Your task to perform on an android device: set default search engine in the chrome app Image 0: 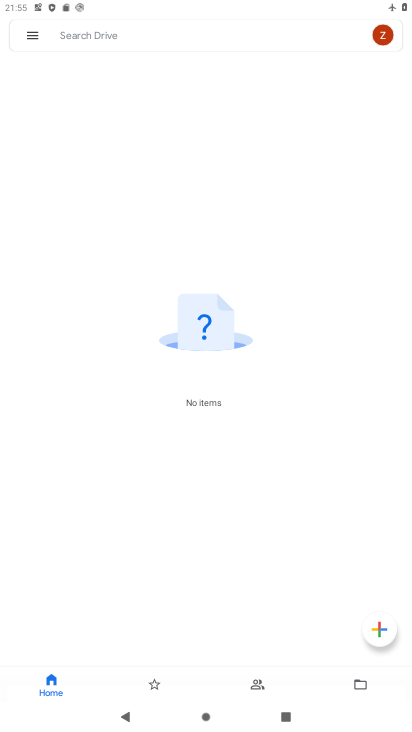
Step 0: press home button
Your task to perform on an android device: set default search engine in the chrome app Image 1: 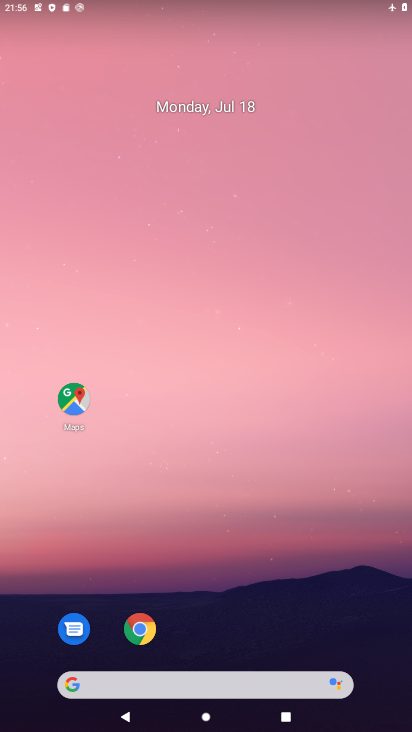
Step 1: drag from (333, 594) to (225, 33)
Your task to perform on an android device: set default search engine in the chrome app Image 2: 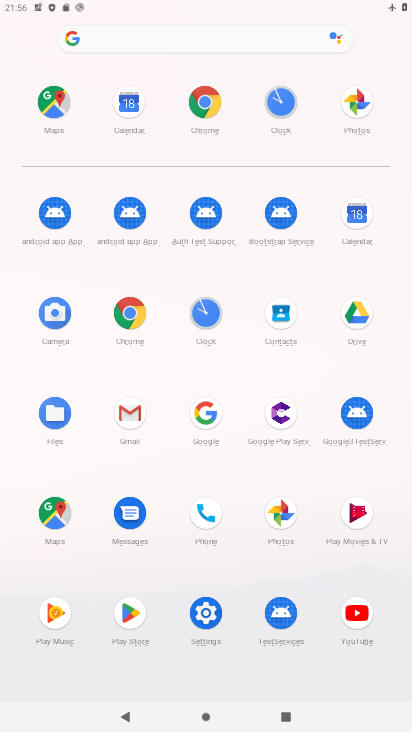
Step 2: click (127, 314)
Your task to perform on an android device: set default search engine in the chrome app Image 3: 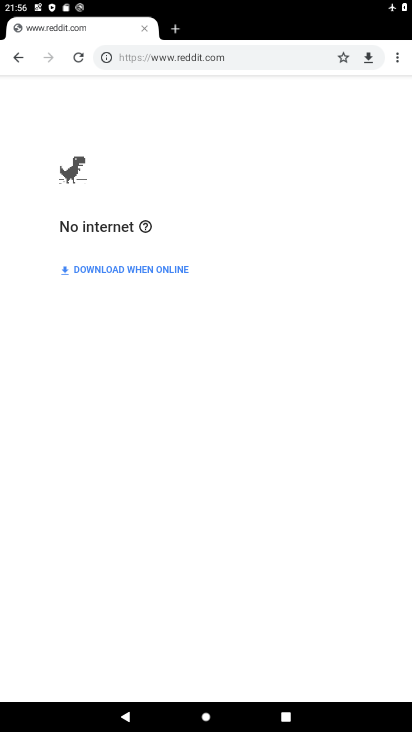
Step 3: drag from (392, 55) to (273, 380)
Your task to perform on an android device: set default search engine in the chrome app Image 4: 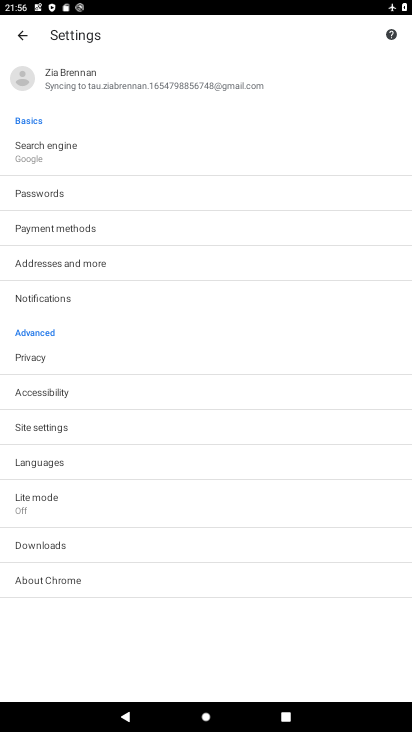
Step 4: click (77, 154)
Your task to perform on an android device: set default search engine in the chrome app Image 5: 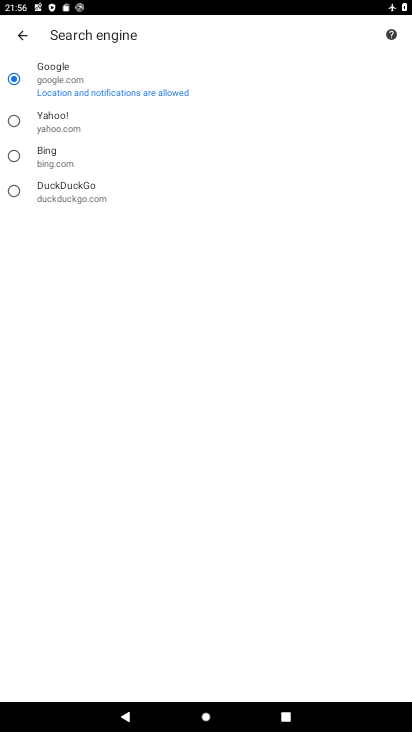
Step 5: task complete